Your task to perform on an android device: Go to ESPN.com Image 0: 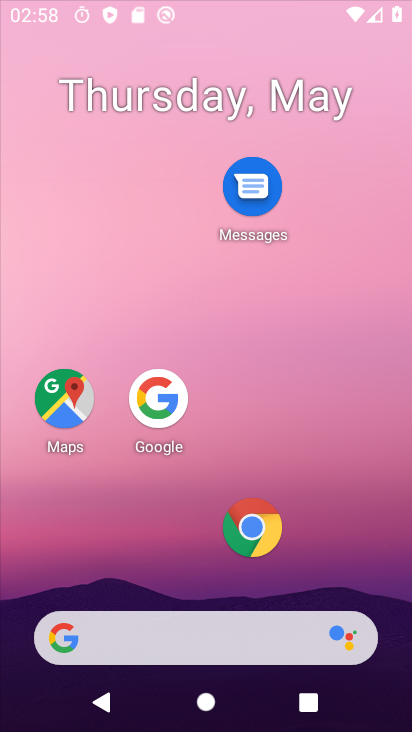
Step 0: click (273, 103)
Your task to perform on an android device: Go to ESPN.com Image 1: 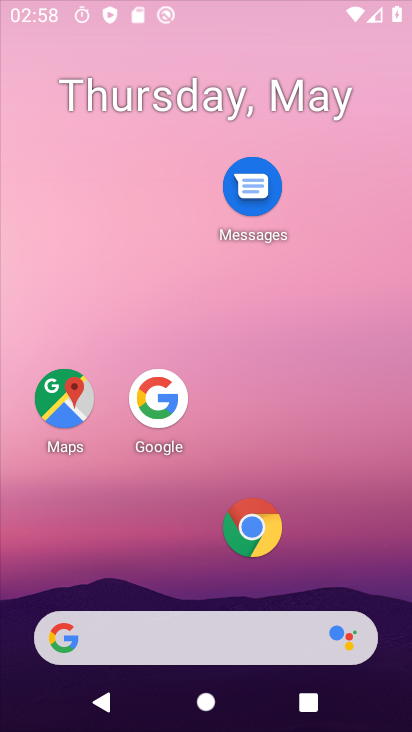
Step 1: drag from (188, 578) to (179, 139)
Your task to perform on an android device: Go to ESPN.com Image 2: 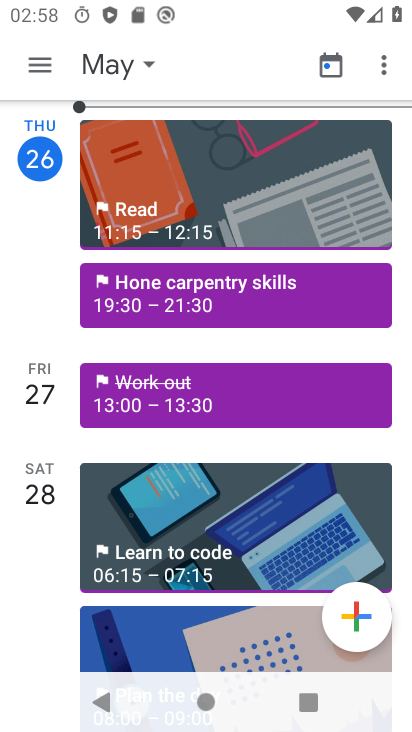
Step 2: press home button
Your task to perform on an android device: Go to ESPN.com Image 3: 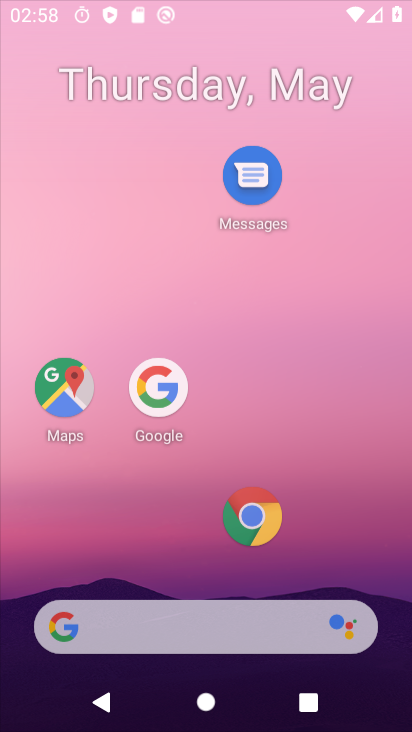
Step 3: drag from (217, 609) to (231, 187)
Your task to perform on an android device: Go to ESPN.com Image 4: 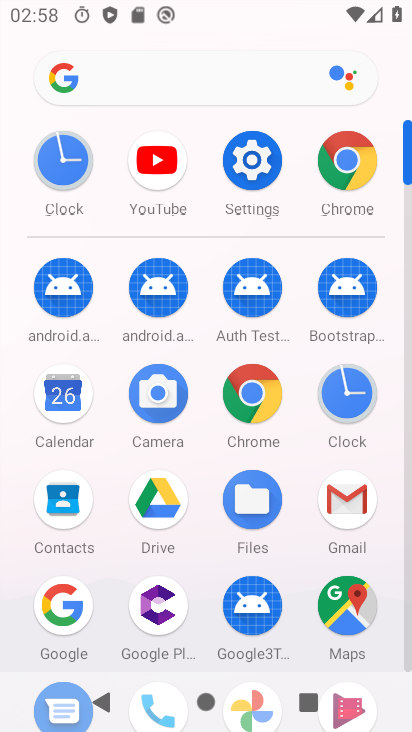
Step 4: click (171, 46)
Your task to perform on an android device: Go to ESPN.com Image 5: 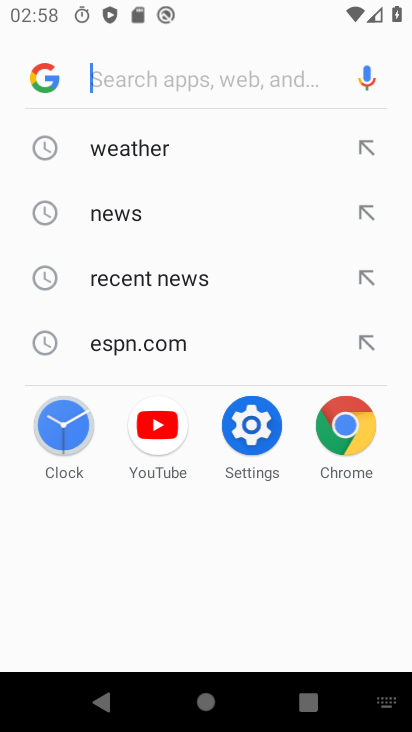
Step 5: click (166, 345)
Your task to perform on an android device: Go to ESPN.com Image 6: 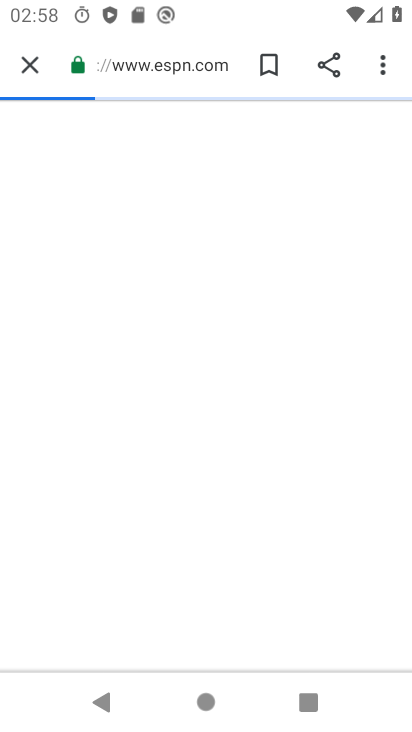
Step 6: task complete